Your task to perform on an android device: What is the news today? Image 0: 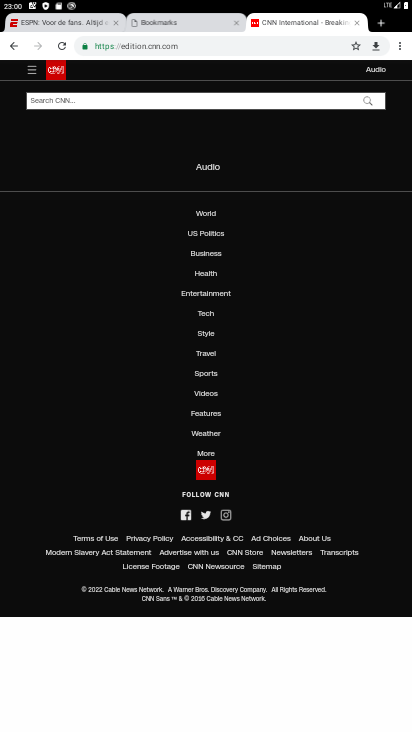
Step 0: press home button
Your task to perform on an android device: What is the news today? Image 1: 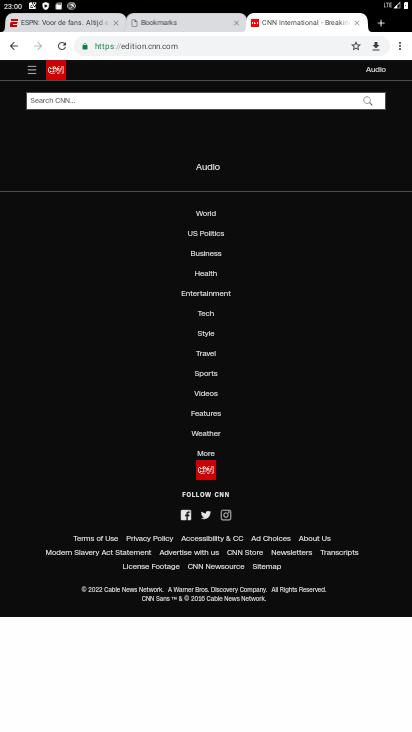
Step 1: click (191, 372)
Your task to perform on an android device: What is the news today? Image 2: 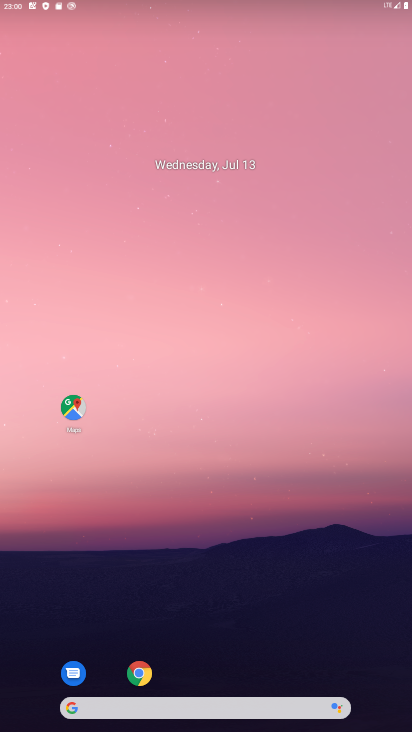
Step 2: drag from (176, 692) to (220, 249)
Your task to perform on an android device: What is the news today? Image 3: 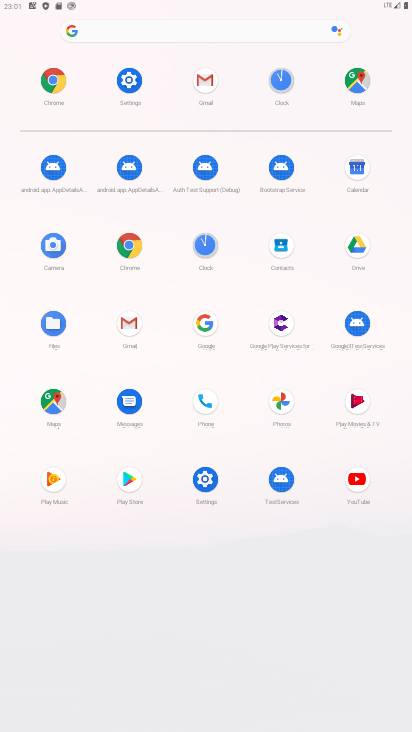
Step 3: click (212, 34)
Your task to perform on an android device: What is the news today? Image 4: 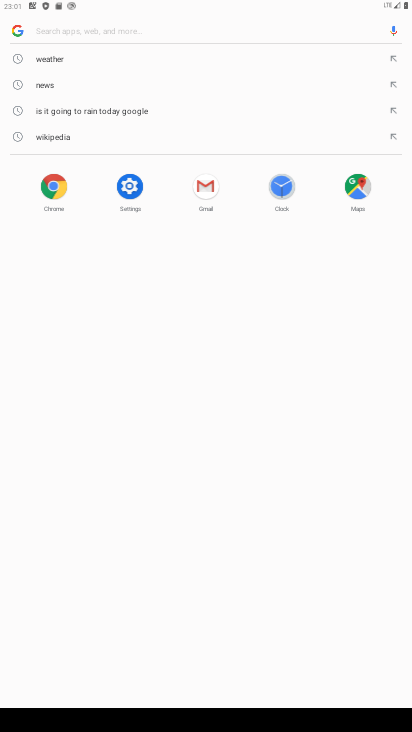
Step 4: type "What is the news today?"
Your task to perform on an android device: What is the news today? Image 5: 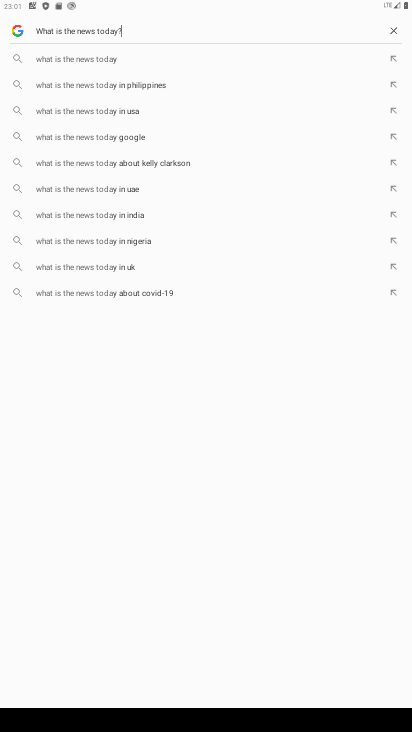
Step 5: type ""
Your task to perform on an android device: What is the news today? Image 6: 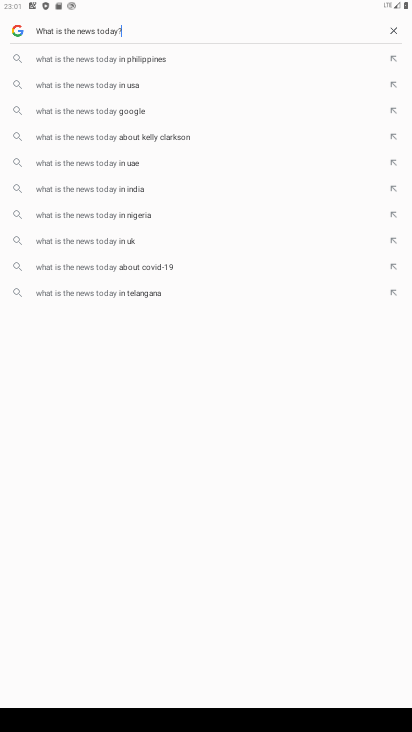
Step 6: click (133, 113)
Your task to perform on an android device: What is the news today? Image 7: 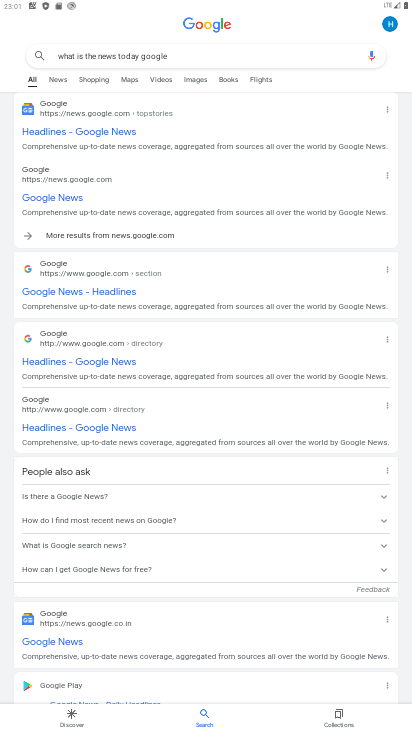
Step 7: drag from (262, 352) to (211, 683)
Your task to perform on an android device: What is the news today? Image 8: 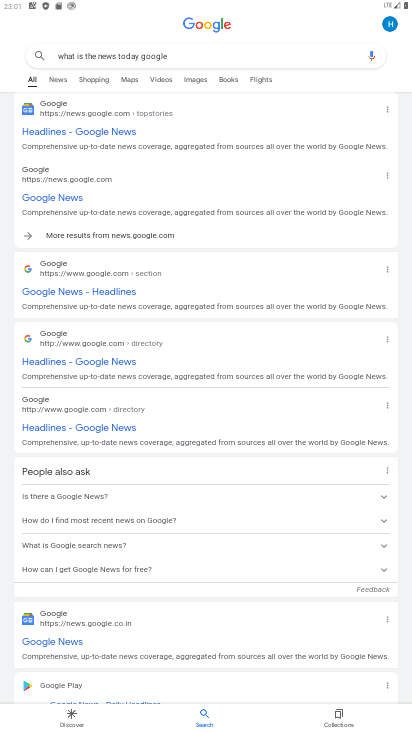
Step 8: click (50, 296)
Your task to perform on an android device: What is the news today? Image 9: 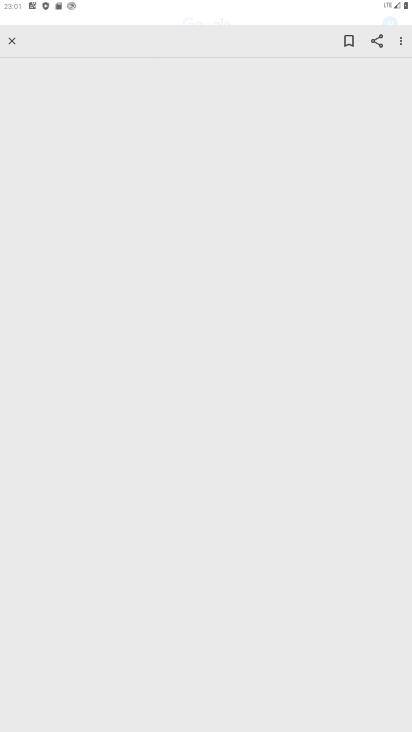
Step 9: task complete